Your task to perform on an android device: turn notification dots on Image 0: 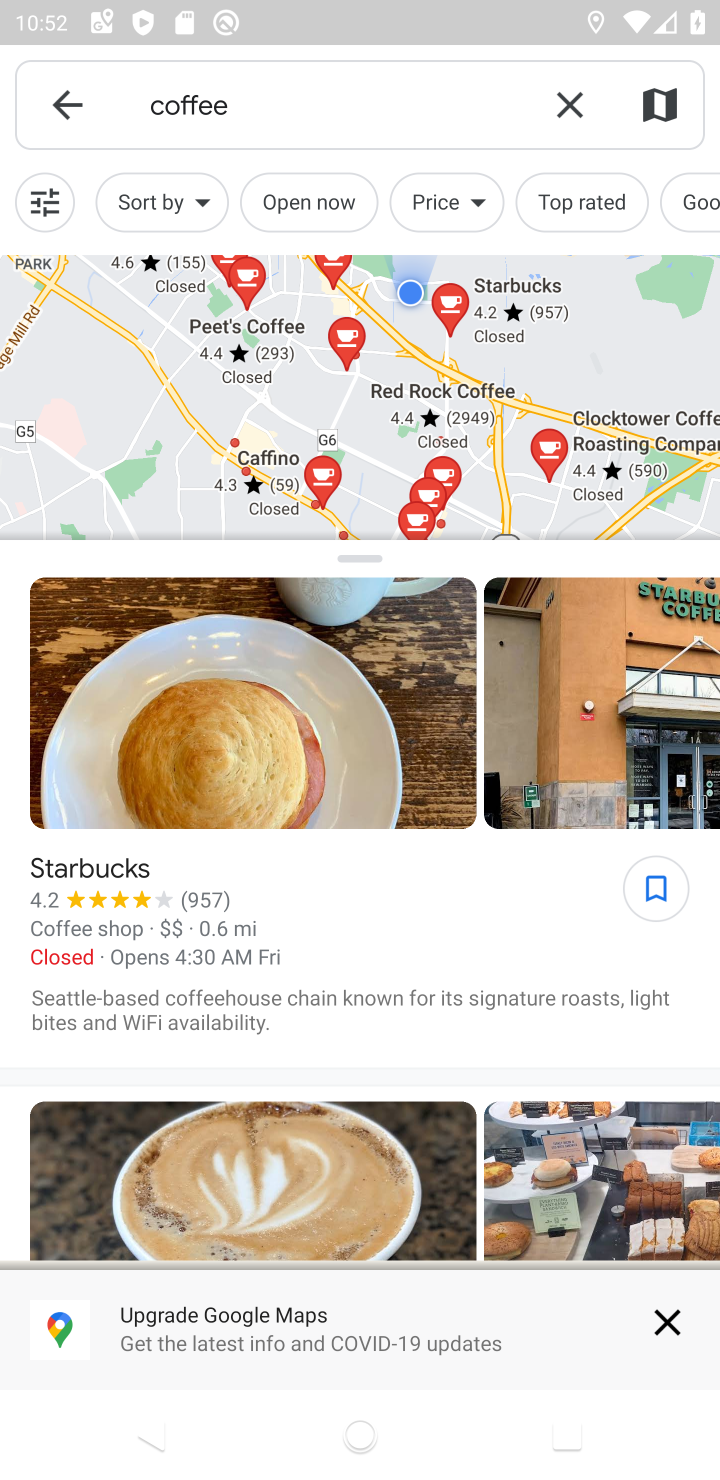
Step 0: press home button
Your task to perform on an android device: turn notification dots on Image 1: 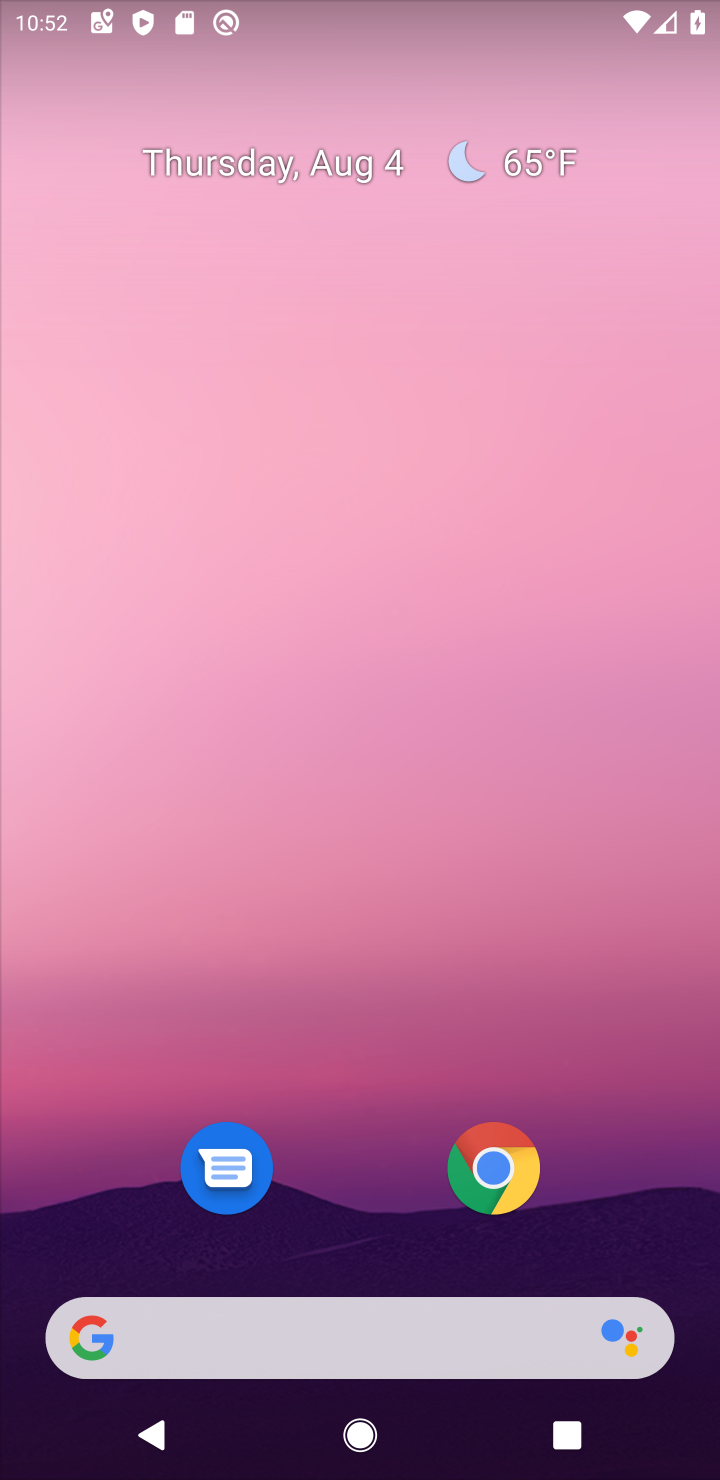
Step 1: drag from (651, 1219) to (315, 53)
Your task to perform on an android device: turn notification dots on Image 2: 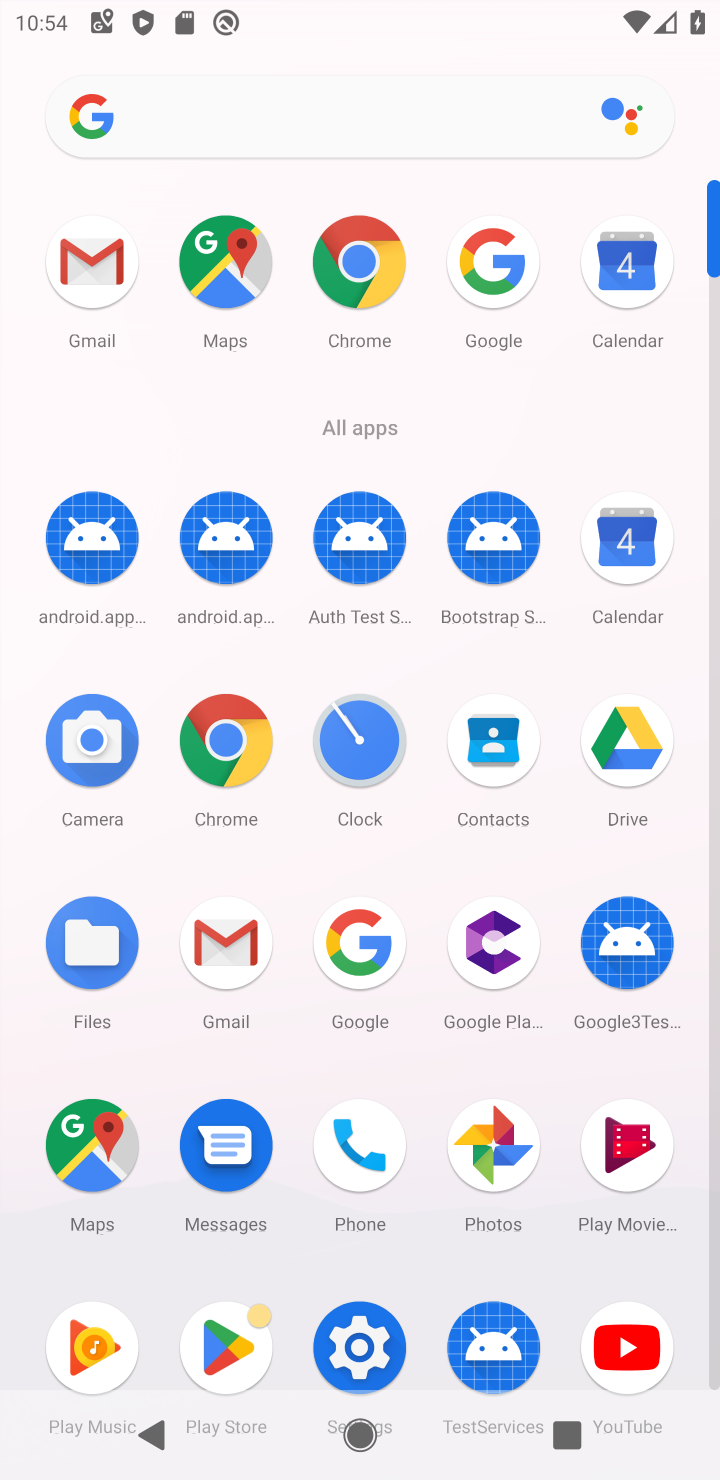
Step 2: click (360, 1308)
Your task to perform on an android device: turn notification dots on Image 3: 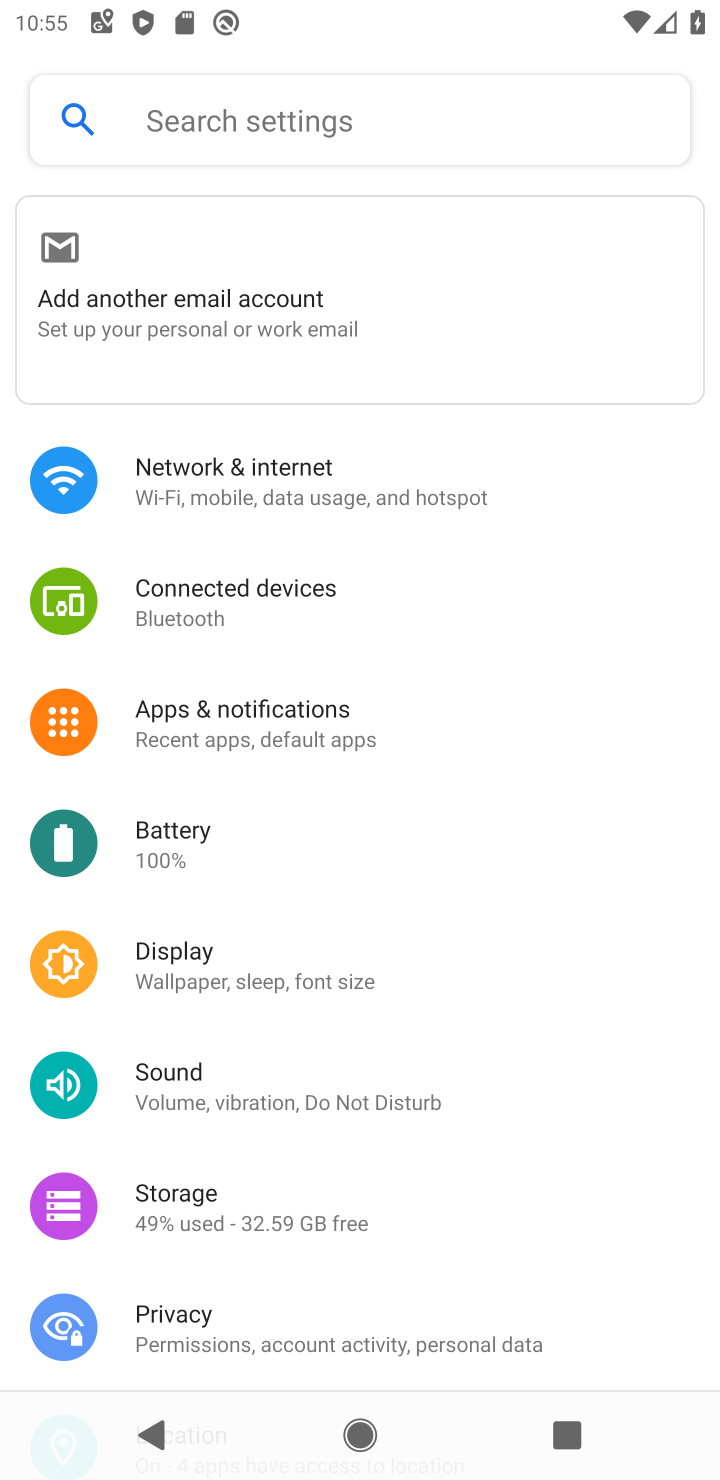
Step 3: drag from (245, 1279) to (354, 873)
Your task to perform on an android device: turn notification dots on Image 4: 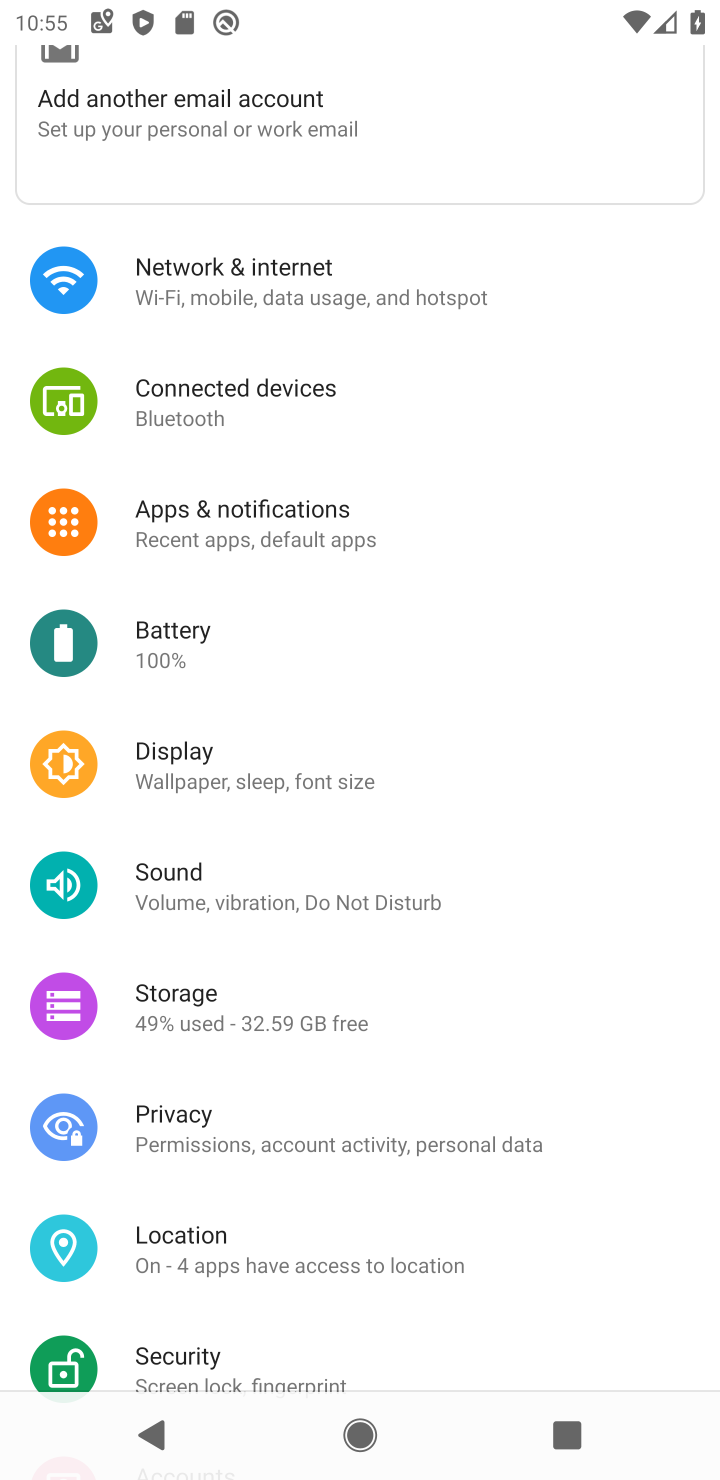
Step 4: click (228, 551)
Your task to perform on an android device: turn notification dots on Image 5: 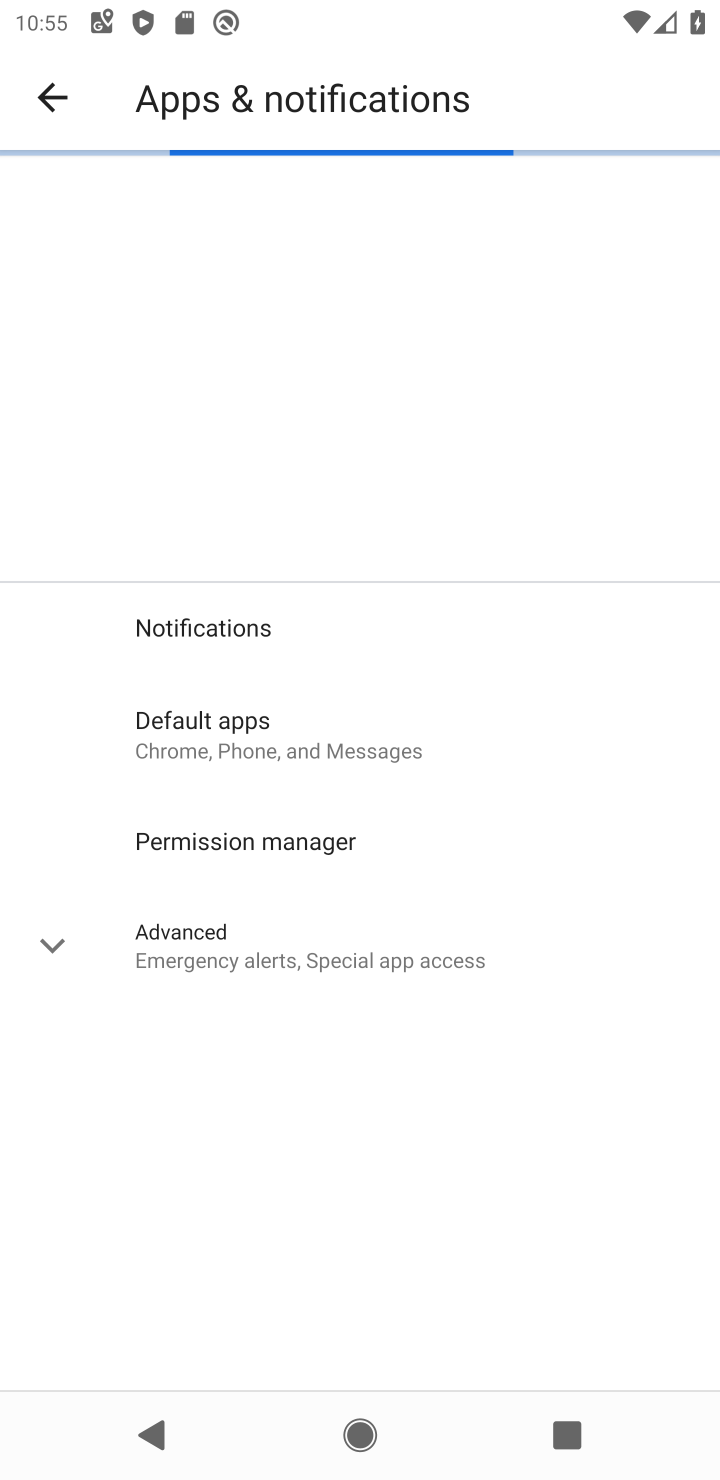
Step 5: click (199, 925)
Your task to perform on an android device: turn notification dots on Image 6: 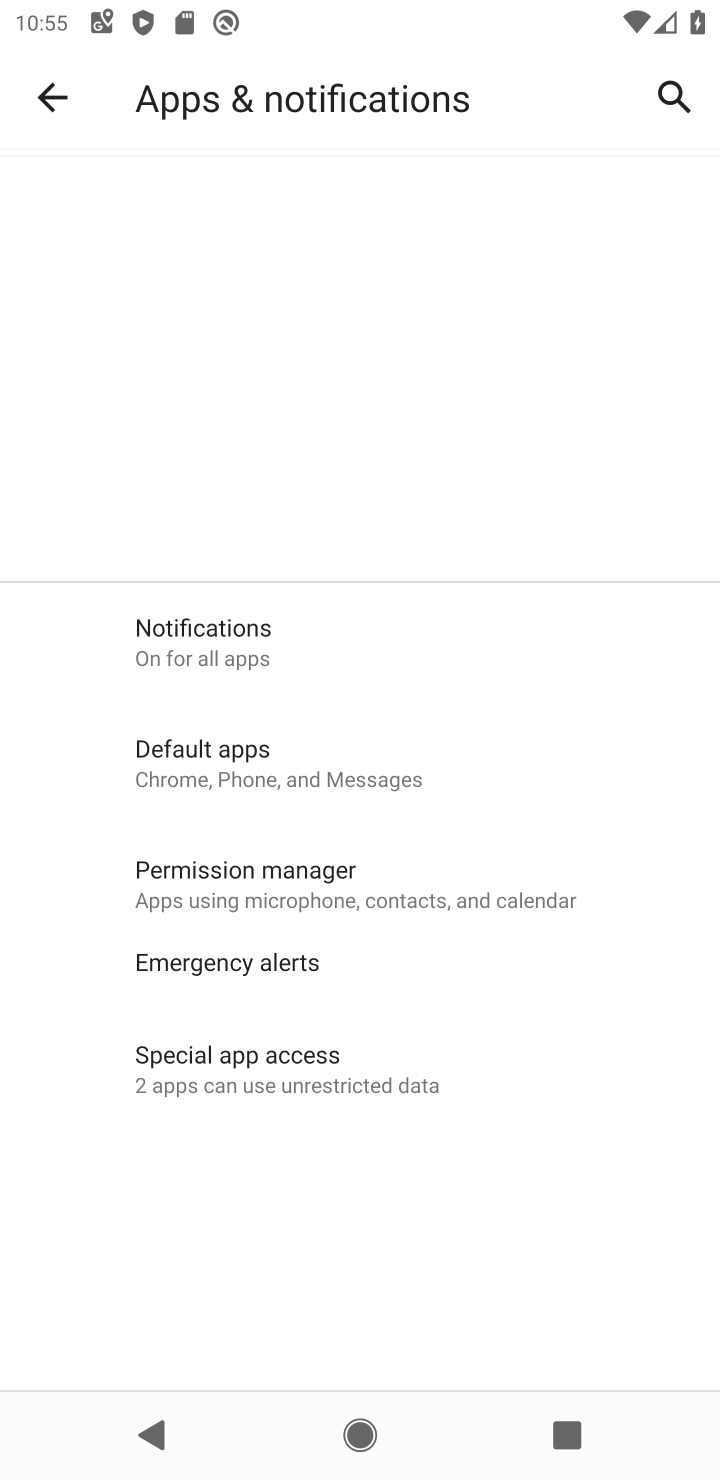
Step 6: click (220, 641)
Your task to perform on an android device: turn notification dots on Image 7: 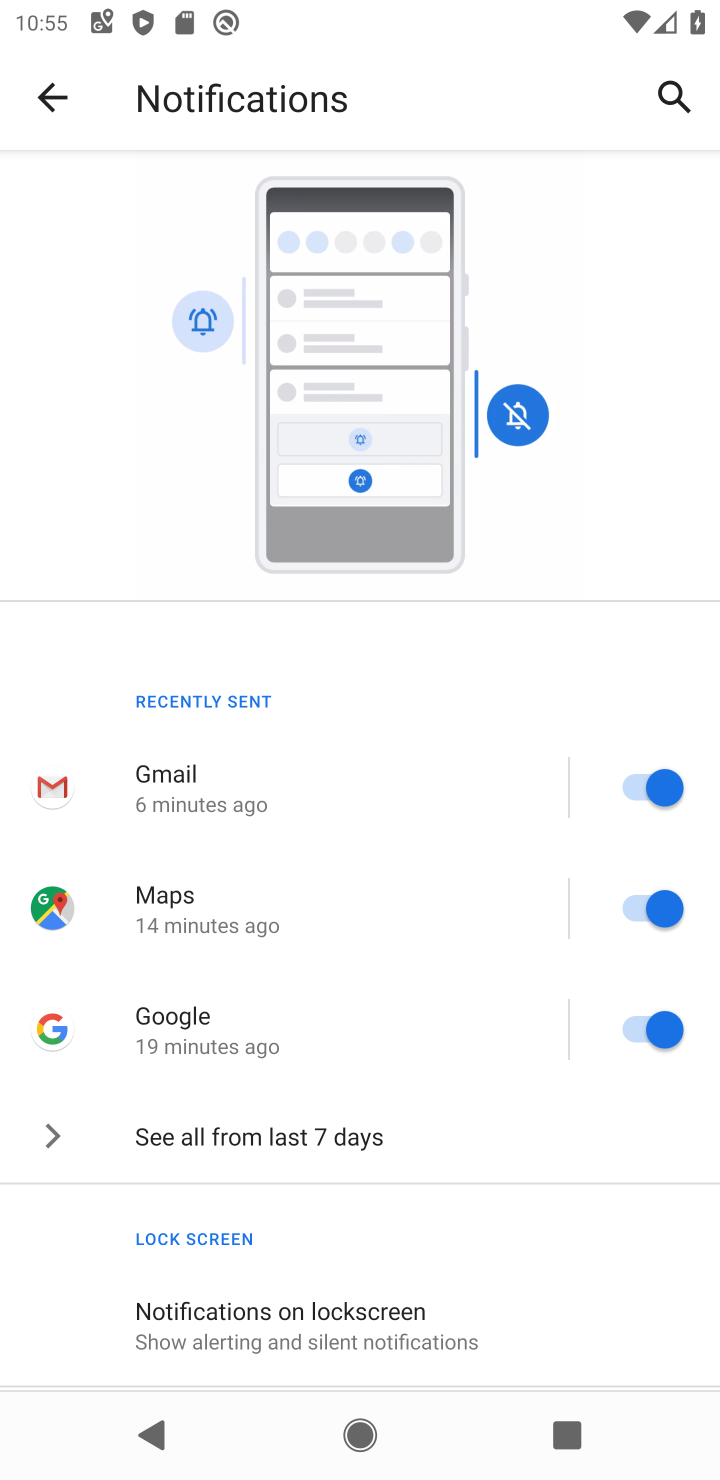
Step 7: drag from (340, 1273) to (341, 217)
Your task to perform on an android device: turn notification dots on Image 8: 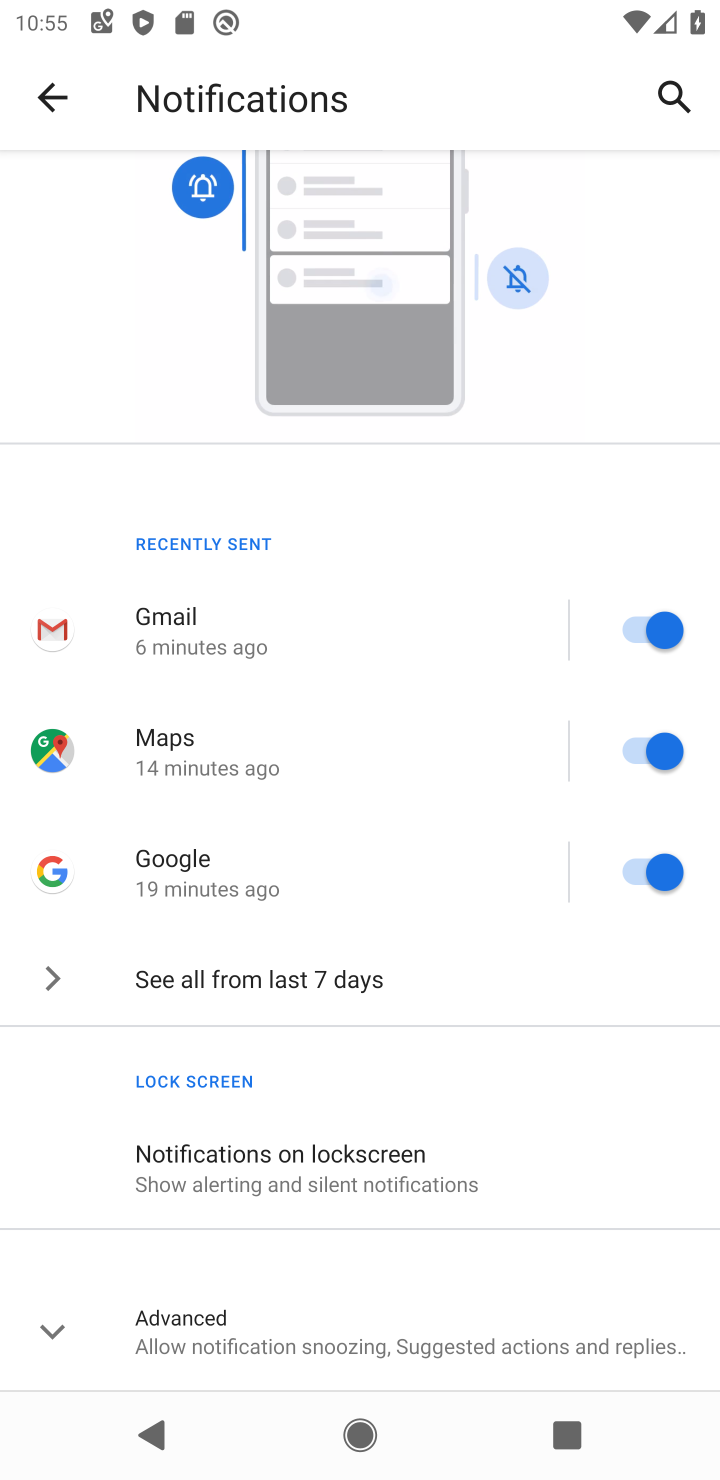
Step 8: click (240, 1323)
Your task to perform on an android device: turn notification dots on Image 9: 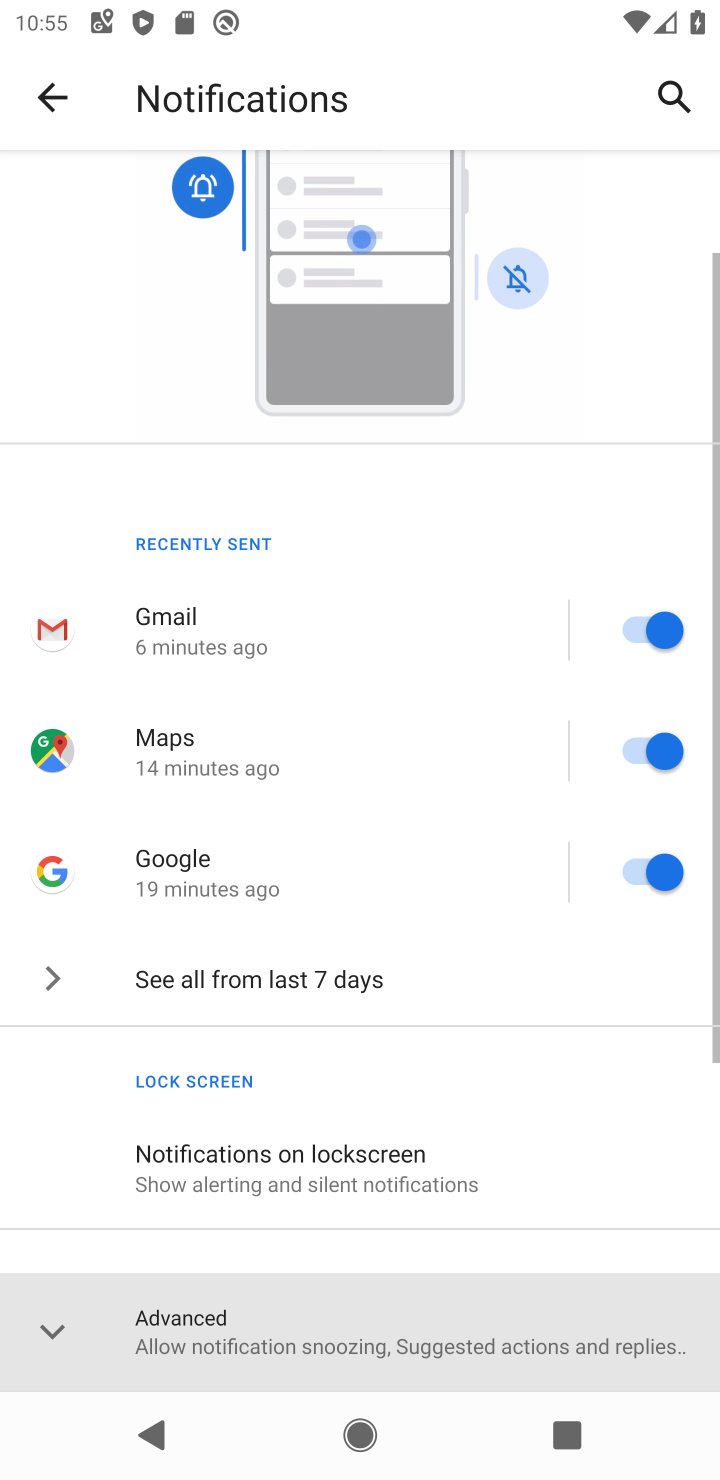
Step 9: task complete